Your task to perform on an android device: Search for pizza restaurants on Maps Image 0: 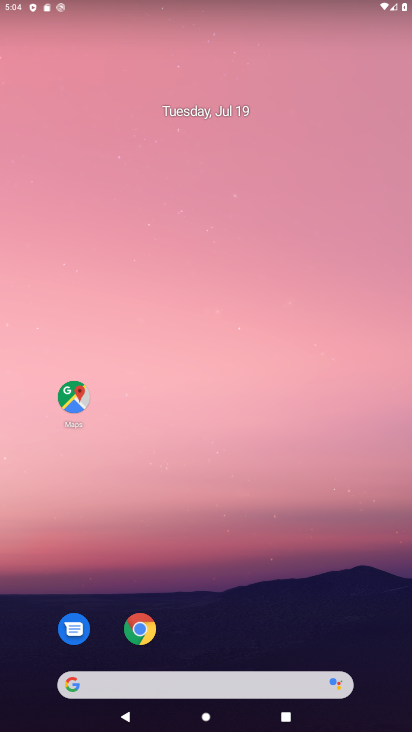
Step 0: press home button
Your task to perform on an android device: Search for pizza restaurants on Maps Image 1: 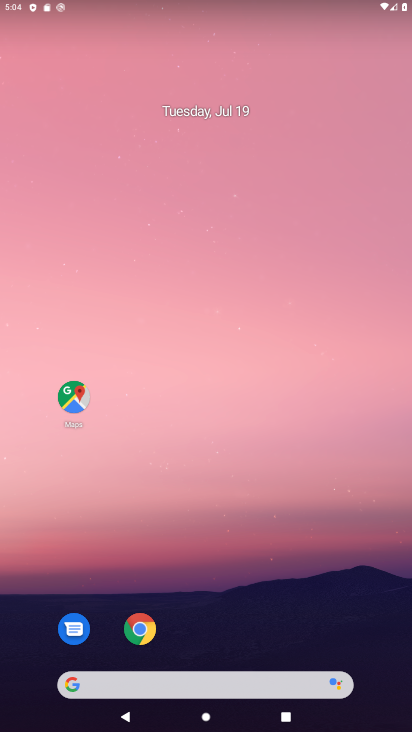
Step 1: drag from (208, 636) to (204, 19)
Your task to perform on an android device: Search for pizza restaurants on Maps Image 2: 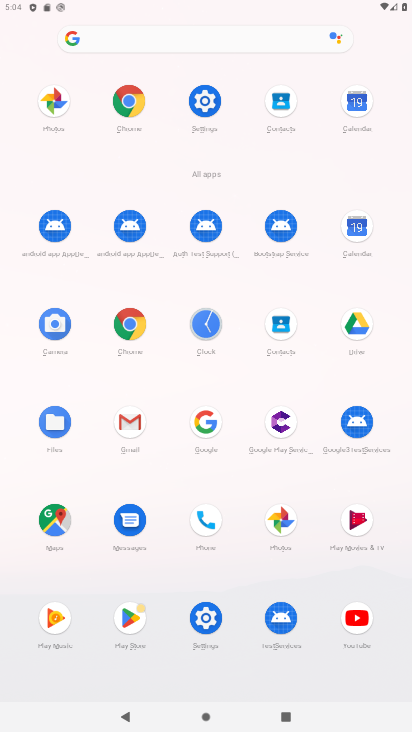
Step 2: click (57, 523)
Your task to perform on an android device: Search for pizza restaurants on Maps Image 3: 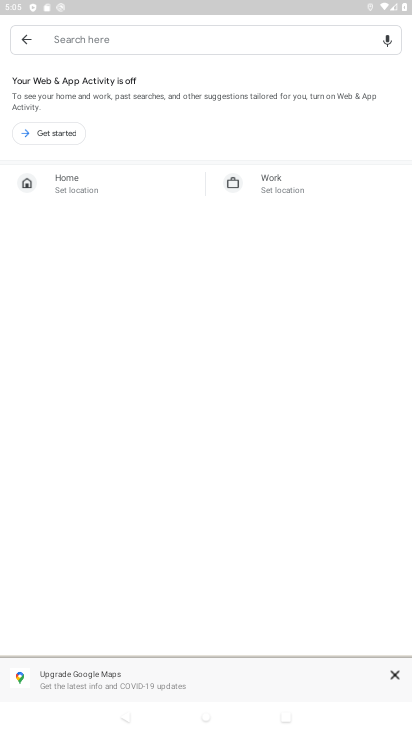
Step 3: click (117, 43)
Your task to perform on an android device: Search for pizza restaurants on Maps Image 4: 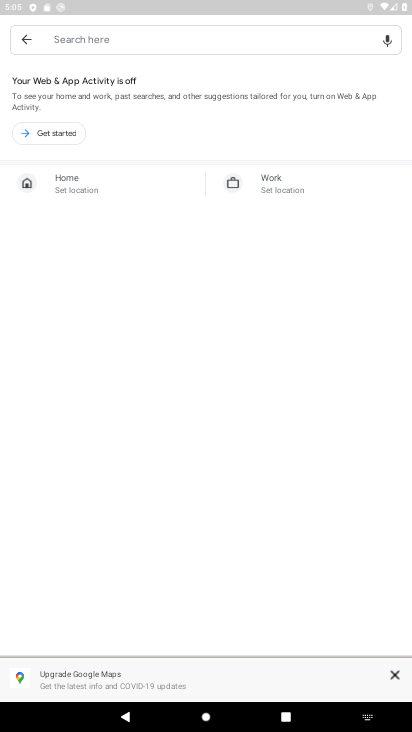
Step 4: click (42, 133)
Your task to perform on an android device: Search for pizza restaurants on Maps Image 5: 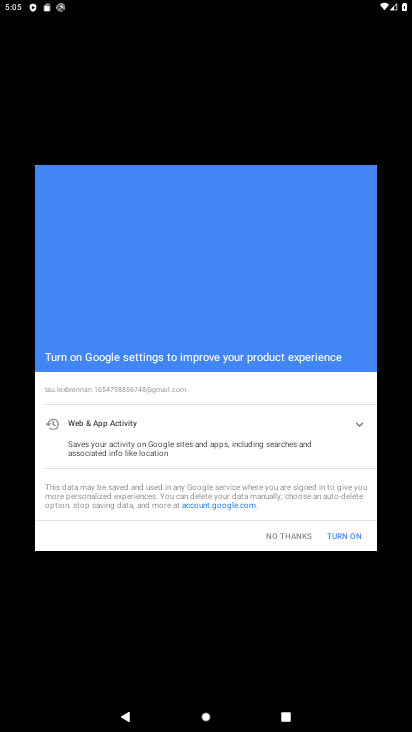
Step 5: click (344, 531)
Your task to perform on an android device: Search for pizza restaurants on Maps Image 6: 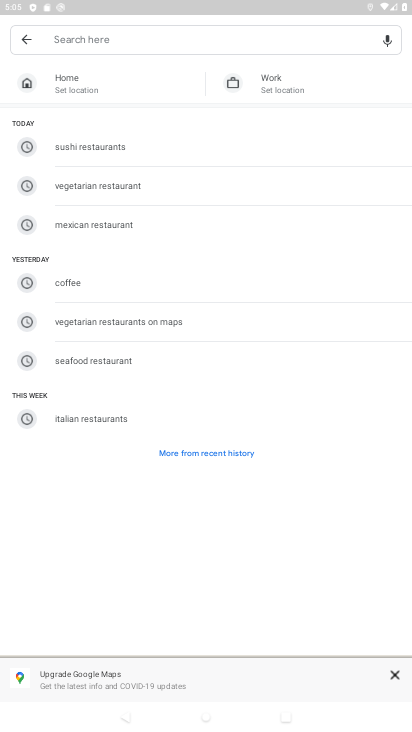
Step 6: type " pizza restaurants"
Your task to perform on an android device: Search for pizza restaurants on Maps Image 7: 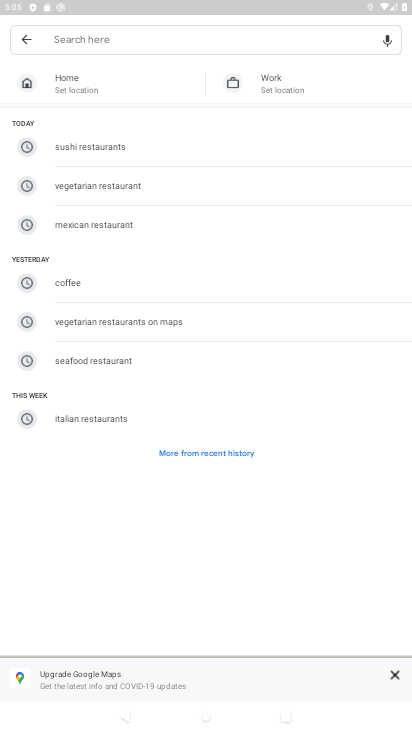
Step 7: click (178, 43)
Your task to perform on an android device: Search for pizza restaurants on Maps Image 8: 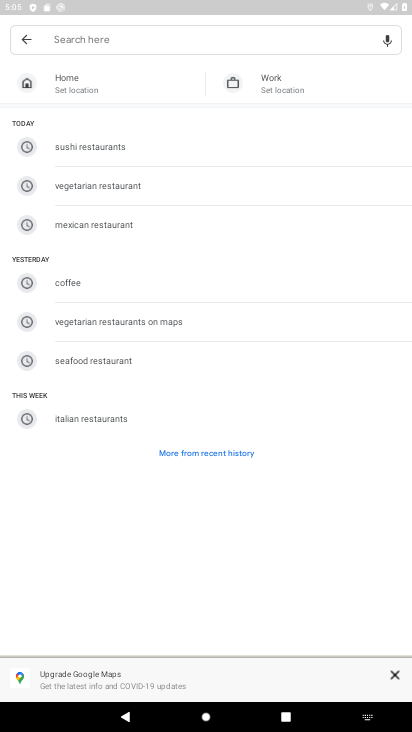
Step 8: type " pizza restaurants"
Your task to perform on an android device: Search for pizza restaurants on Maps Image 9: 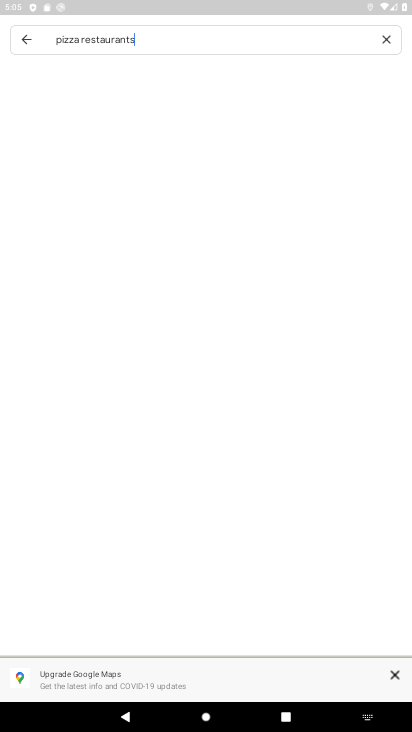
Step 9: press enter
Your task to perform on an android device: Search for pizza restaurants on Maps Image 10: 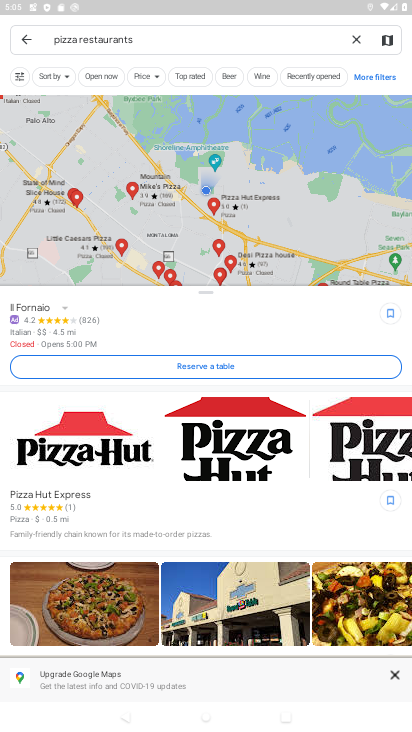
Step 10: task complete